Your task to perform on an android device: turn off improve location accuracy Image 0: 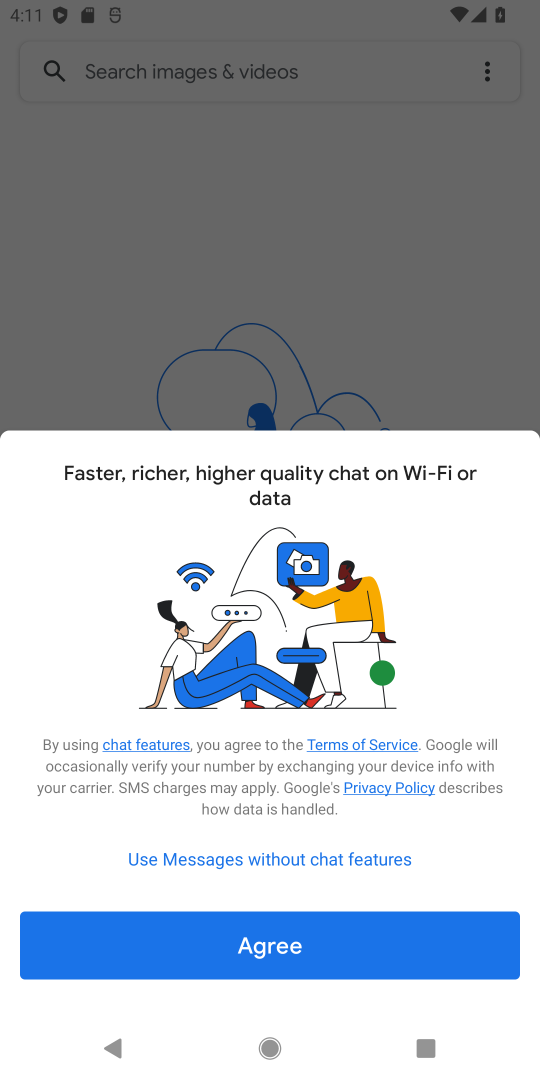
Step 0: press home button
Your task to perform on an android device: turn off improve location accuracy Image 1: 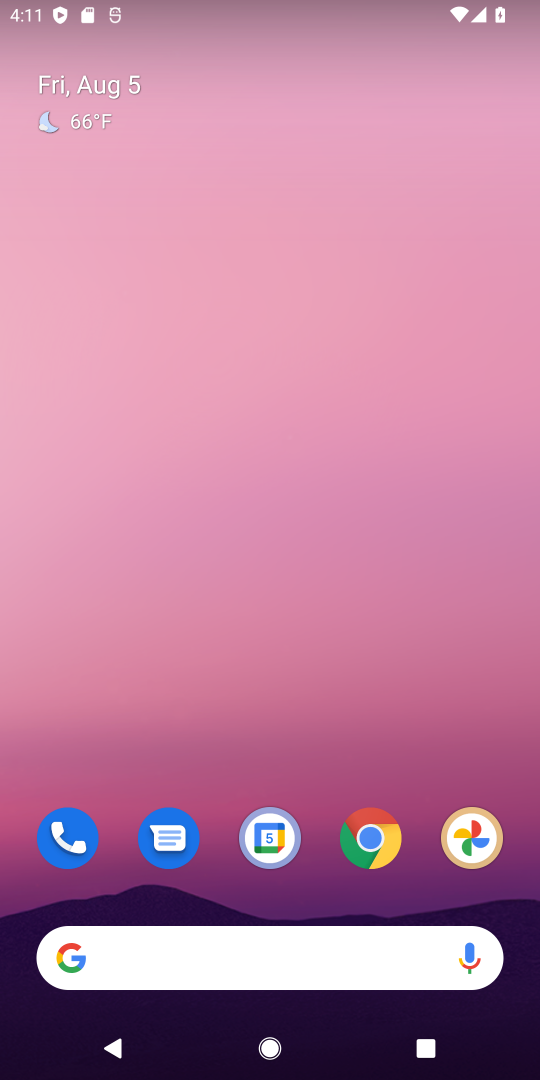
Step 1: drag from (365, 915) to (382, 7)
Your task to perform on an android device: turn off improve location accuracy Image 2: 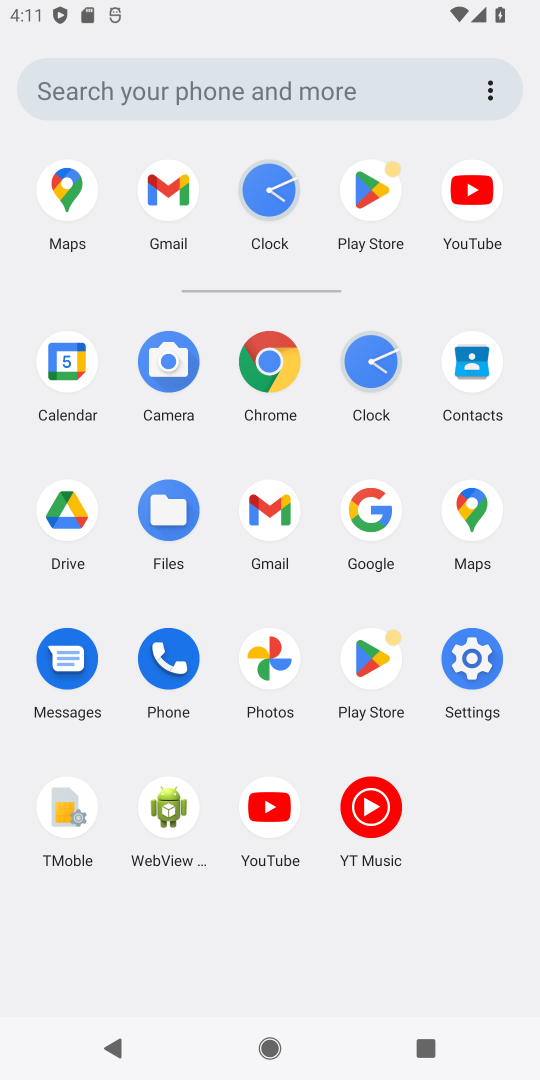
Step 2: click (463, 669)
Your task to perform on an android device: turn off improve location accuracy Image 3: 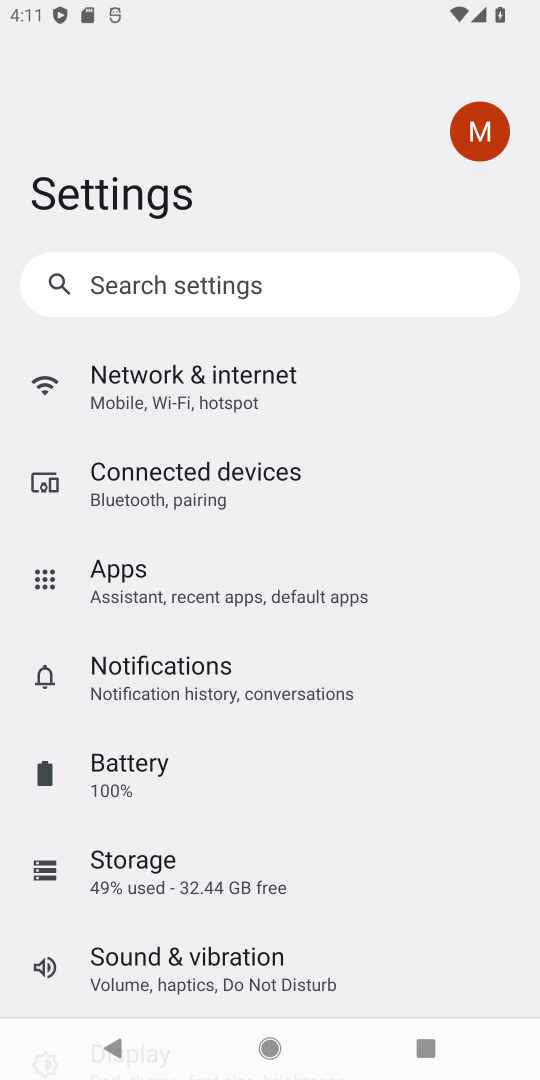
Step 3: drag from (199, 887) to (355, 176)
Your task to perform on an android device: turn off improve location accuracy Image 4: 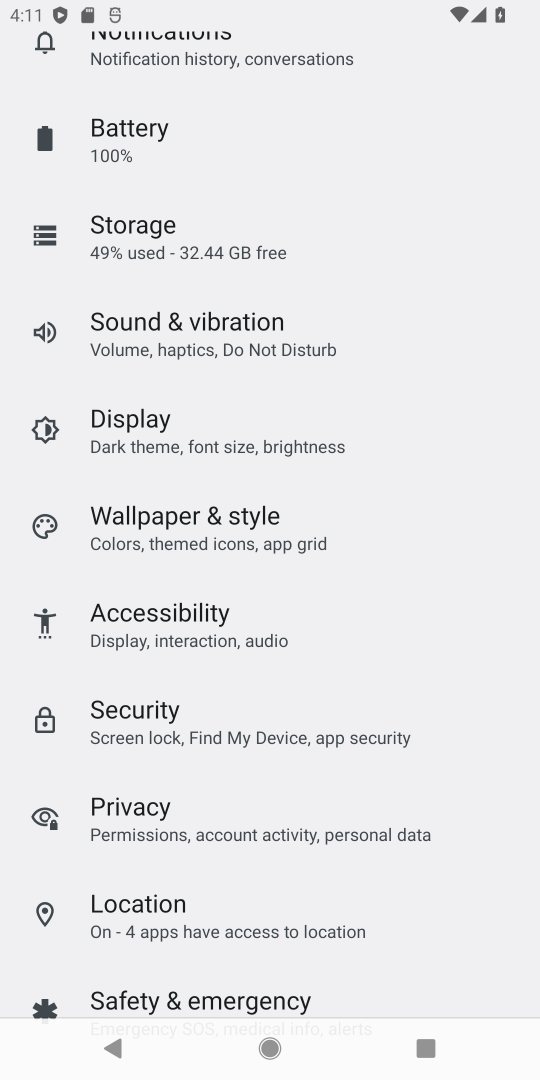
Step 4: click (248, 902)
Your task to perform on an android device: turn off improve location accuracy Image 5: 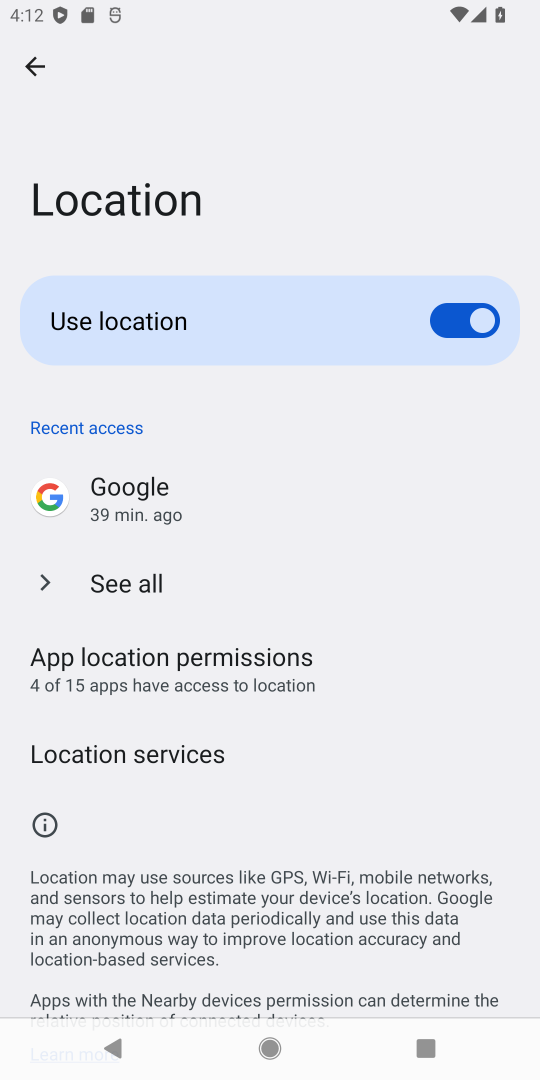
Step 5: click (193, 740)
Your task to perform on an android device: turn off improve location accuracy Image 6: 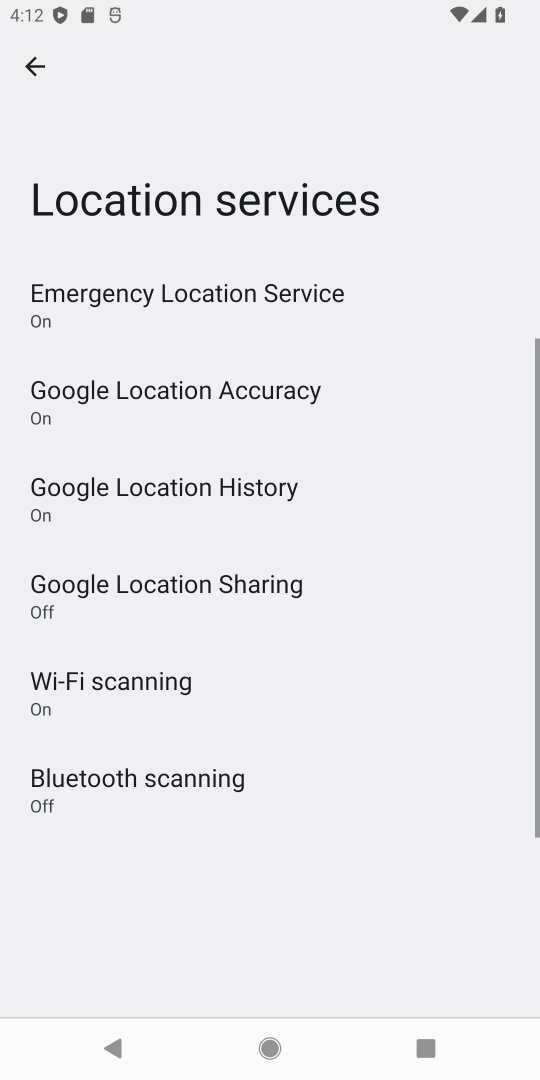
Step 6: click (237, 406)
Your task to perform on an android device: turn off improve location accuracy Image 7: 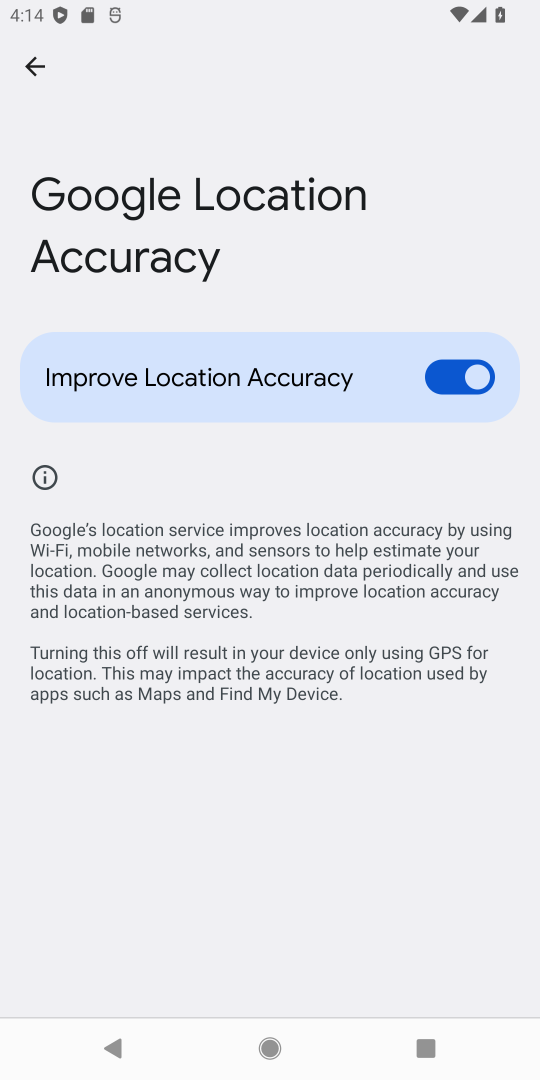
Step 7: task complete